Your task to perform on an android device: Toggle the flashlight Image 0: 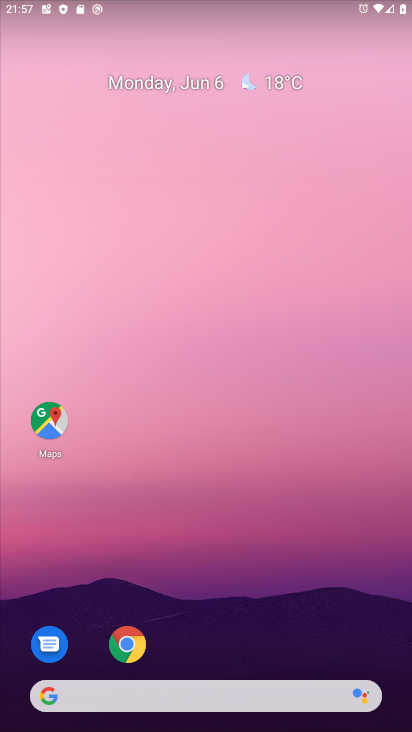
Step 0: press home button
Your task to perform on an android device: Toggle the flashlight Image 1: 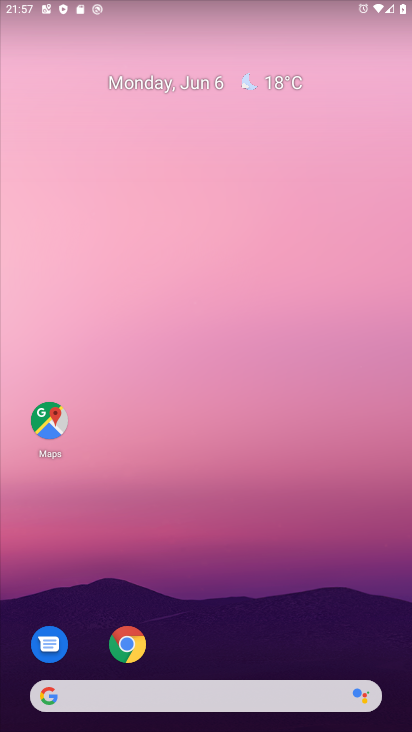
Step 1: drag from (357, 619) to (312, 0)
Your task to perform on an android device: Toggle the flashlight Image 2: 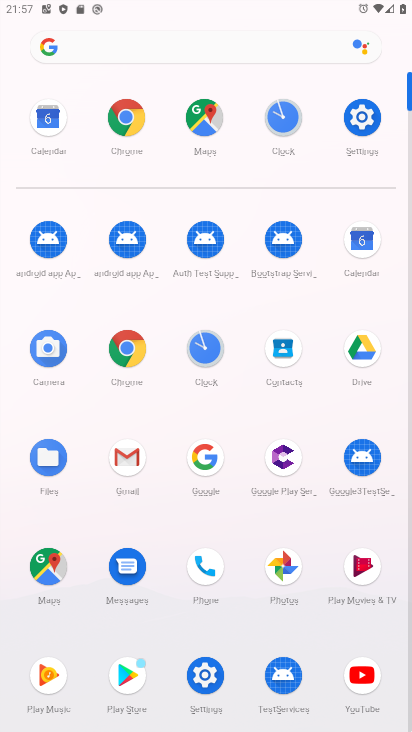
Step 2: click (212, 684)
Your task to perform on an android device: Toggle the flashlight Image 3: 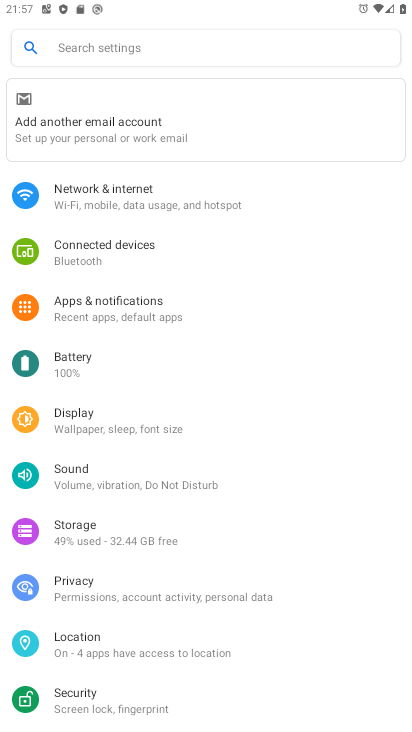
Step 3: drag from (220, 626) to (275, 259)
Your task to perform on an android device: Toggle the flashlight Image 4: 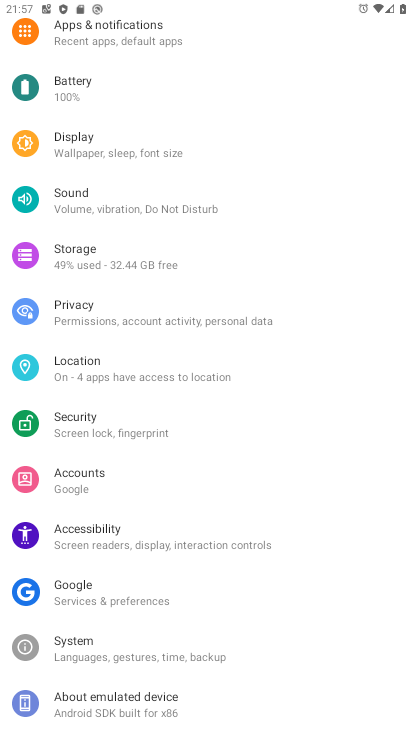
Step 4: drag from (167, 70) to (285, 609)
Your task to perform on an android device: Toggle the flashlight Image 5: 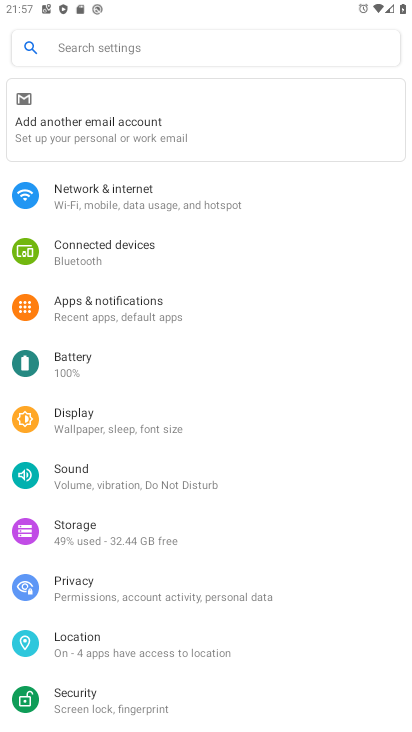
Step 5: click (218, 48)
Your task to perform on an android device: Toggle the flashlight Image 6: 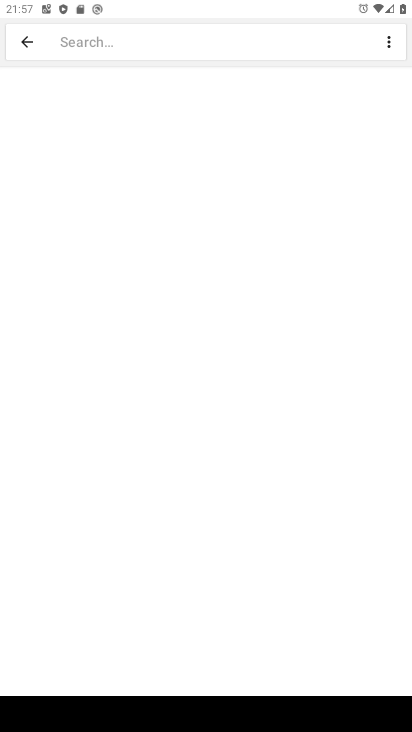
Step 6: type "flashlight"
Your task to perform on an android device: Toggle the flashlight Image 7: 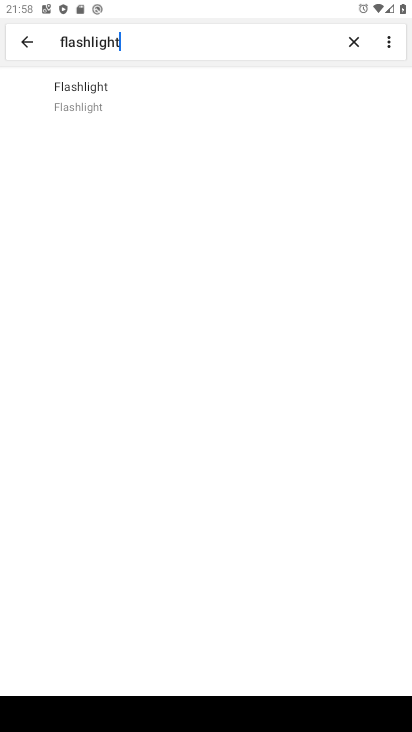
Step 7: task complete